Your task to perform on an android device: Go to Android settings Image 0: 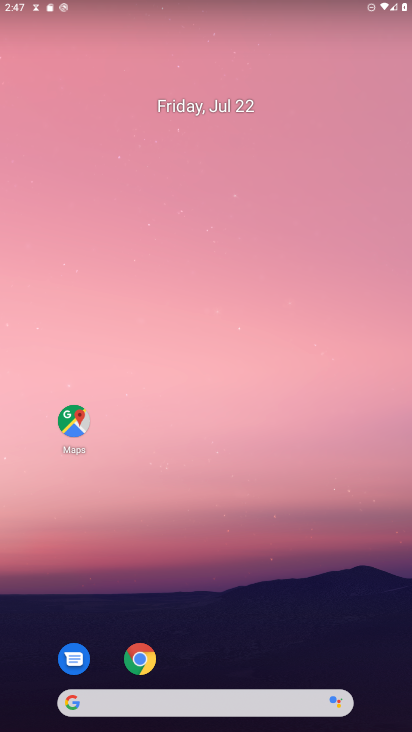
Step 0: drag from (314, 667) to (164, 129)
Your task to perform on an android device: Go to Android settings Image 1: 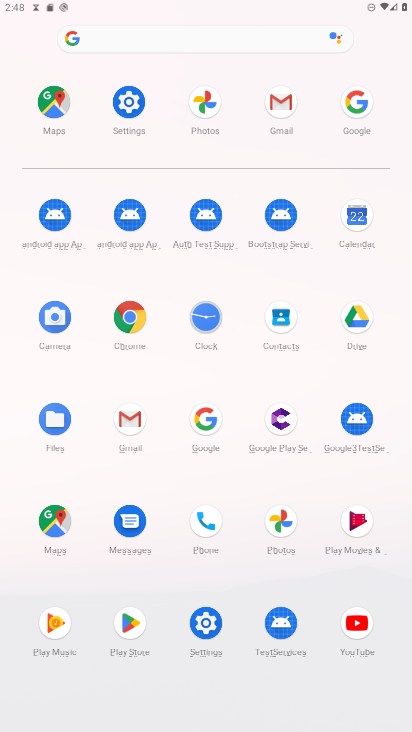
Step 1: click (130, 95)
Your task to perform on an android device: Go to Android settings Image 2: 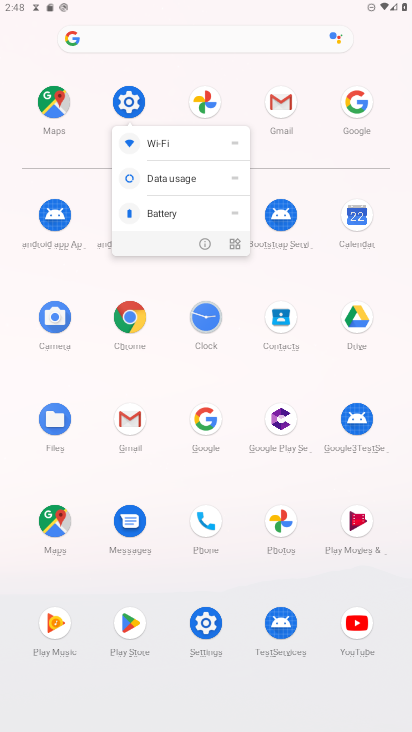
Step 2: click (130, 94)
Your task to perform on an android device: Go to Android settings Image 3: 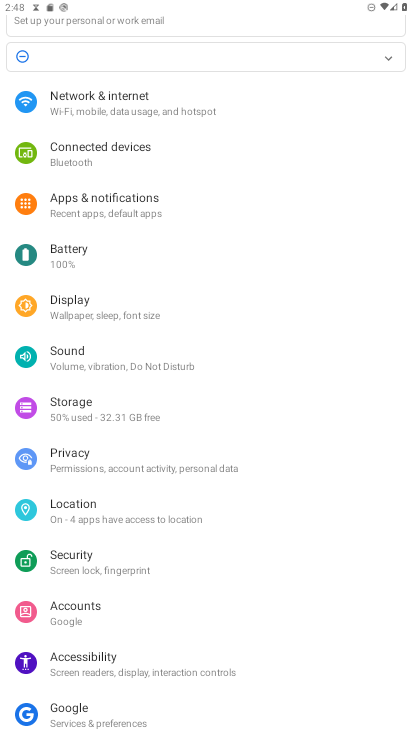
Step 3: drag from (274, 516) to (228, 163)
Your task to perform on an android device: Go to Android settings Image 4: 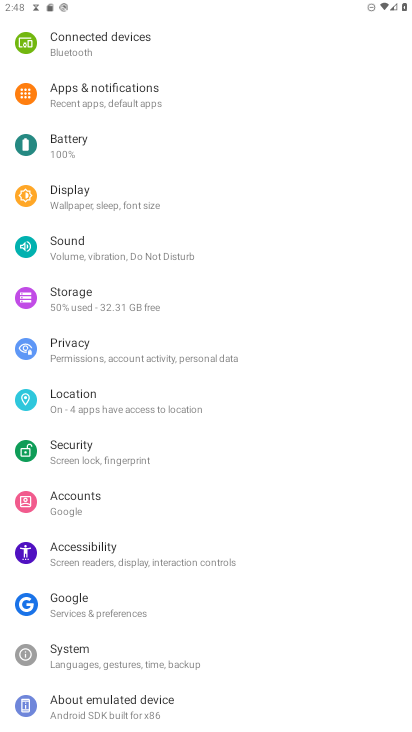
Step 4: drag from (219, 585) to (264, 211)
Your task to perform on an android device: Go to Android settings Image 5: 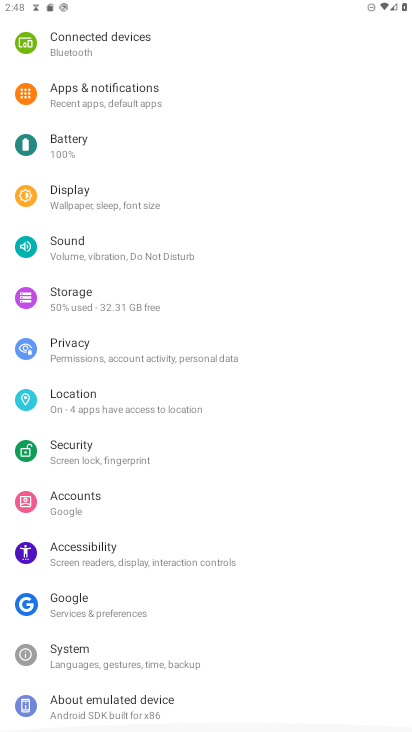
Step 5: drag from (255, 221) to (297, 640)
Your task to perform on an android device: Go to Android settings Image 6: 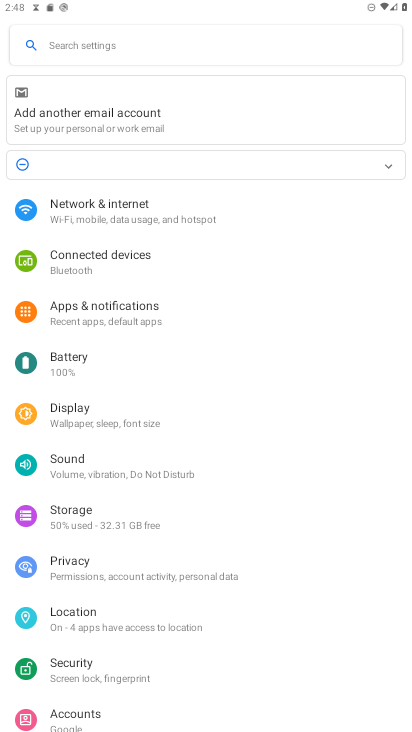
Step 6: drag from (312, 585) to (324, 215)
Your task to perform on an android device: Go to Android settings Image 7: 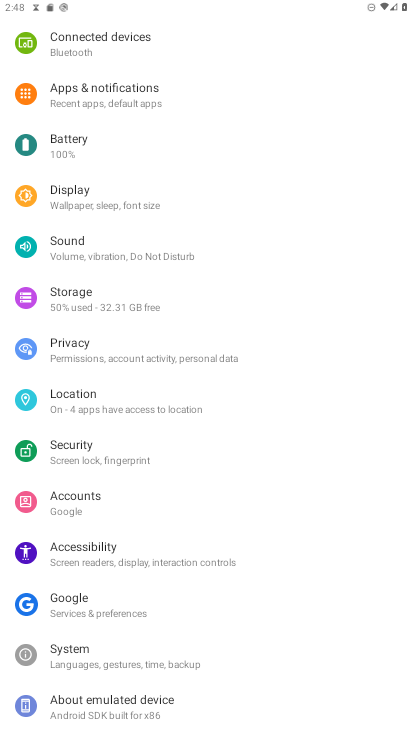
Step 7: click (176, 709)
Your task to perform on an android device: Go to Android settings Image 8: 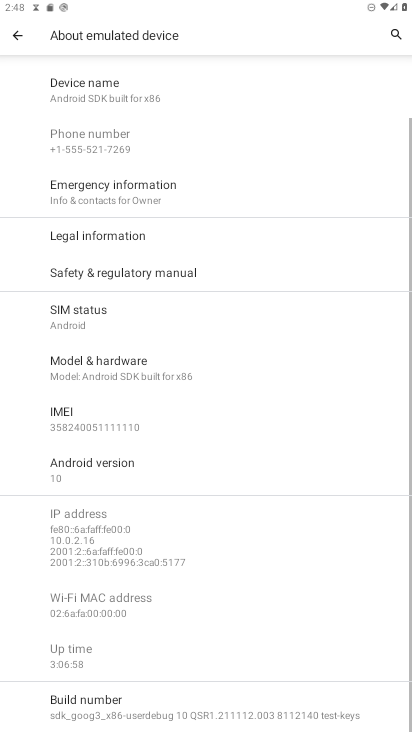
Step 8: task complete